Your task to perform on an android device: turn on the 12-hour format for clock Image 0: 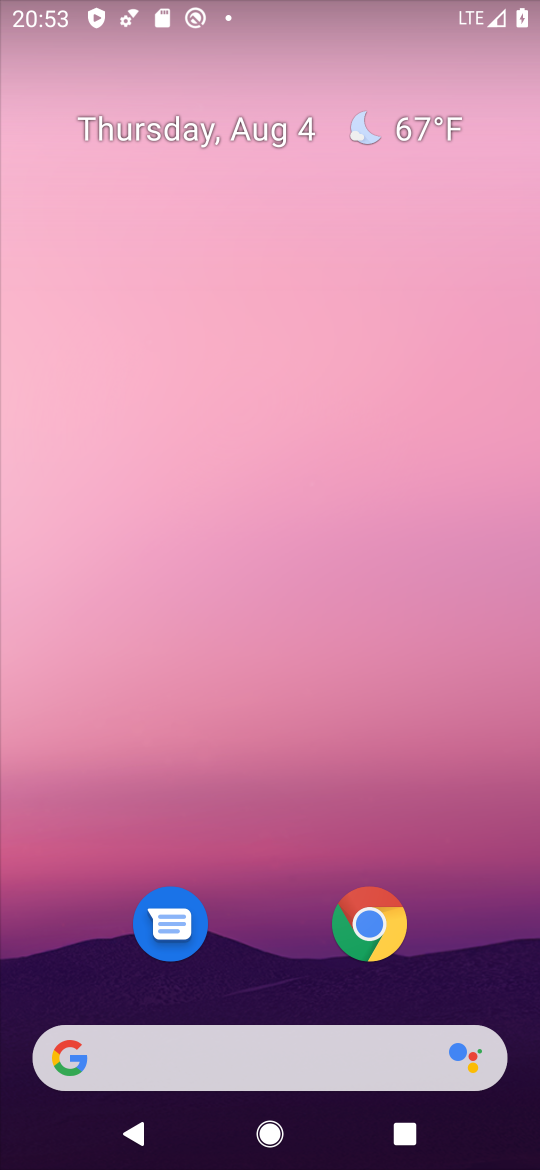
Step 0: drag from (282, 983) to (210, 37)
Your task to perform on an android device: turn on the 12-hour format for clock Image 1: 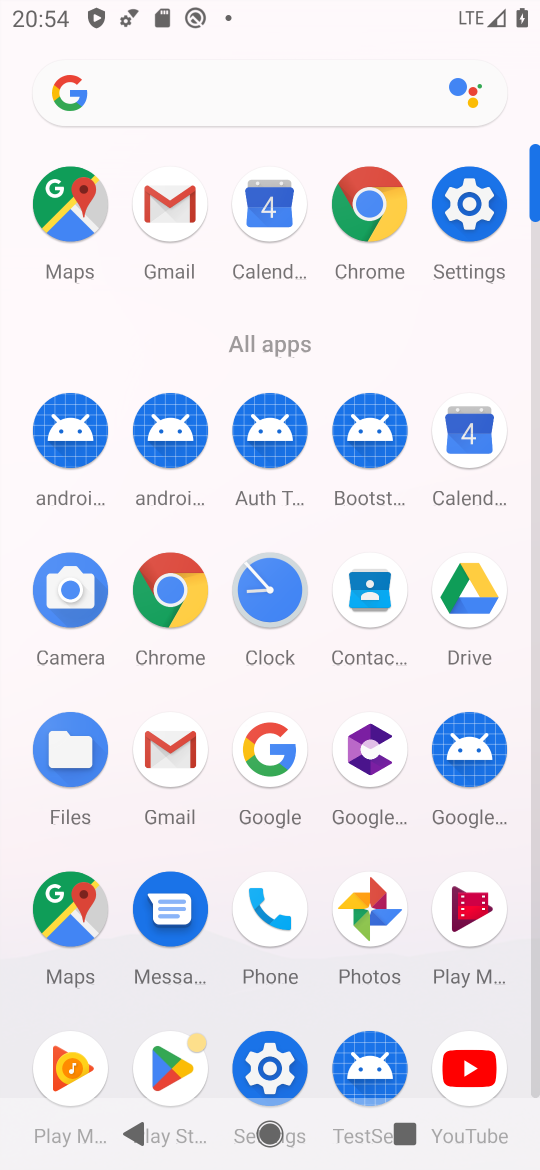
Step 1: click (281, 605)
Your task to perform on an android device: turn on the 12-hour format for clock Image 2: 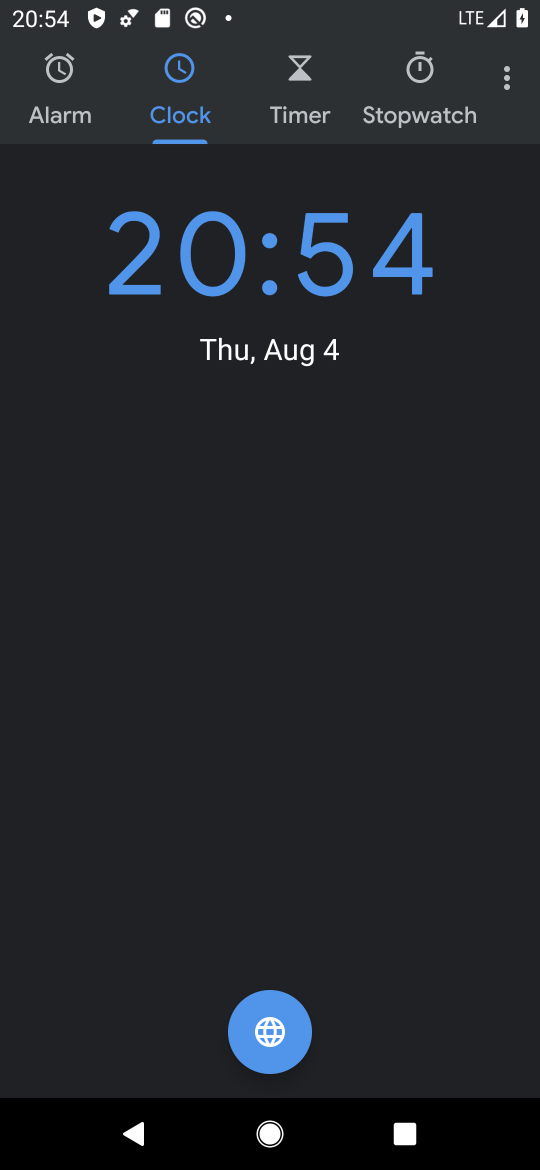
Step 2: click (518, 92)
Your task to perform on an android device: turn on the 12-hour format for clock Image 3: 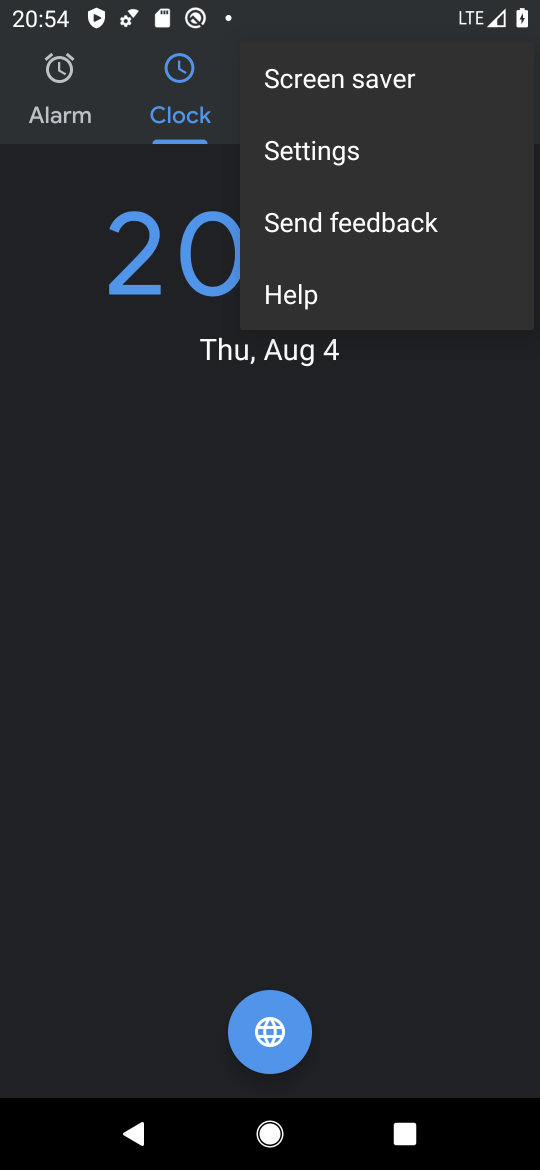
Step 3: click (344, 150)
Your task to perform on an android device: turn on the 12-hour format for clock Image 4: 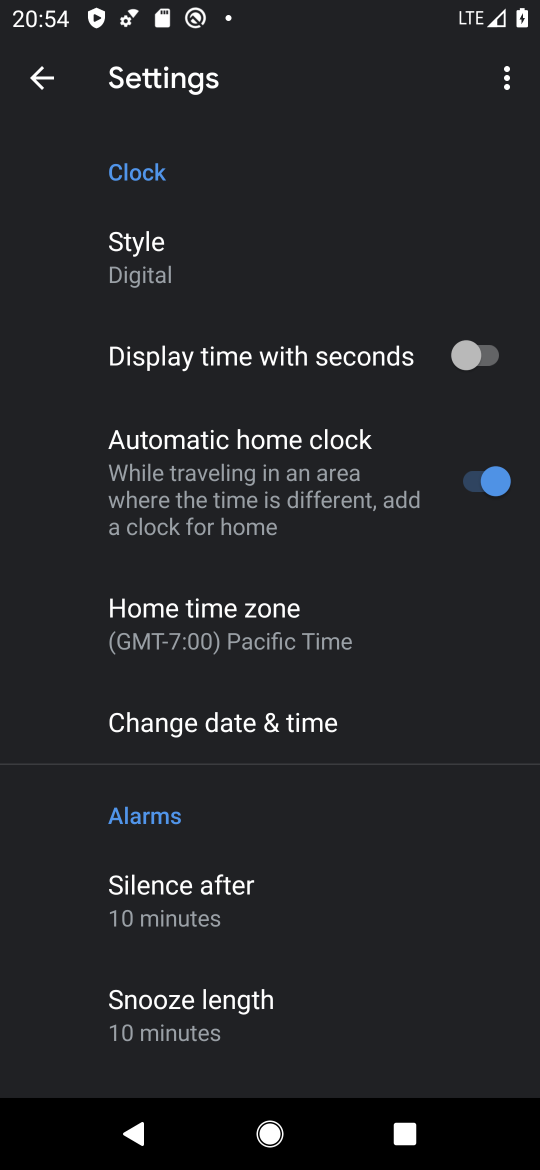
Step 4: click (237, 724)
Your task to perform on an android device: turn on the 12-hour format for clock Image 5: 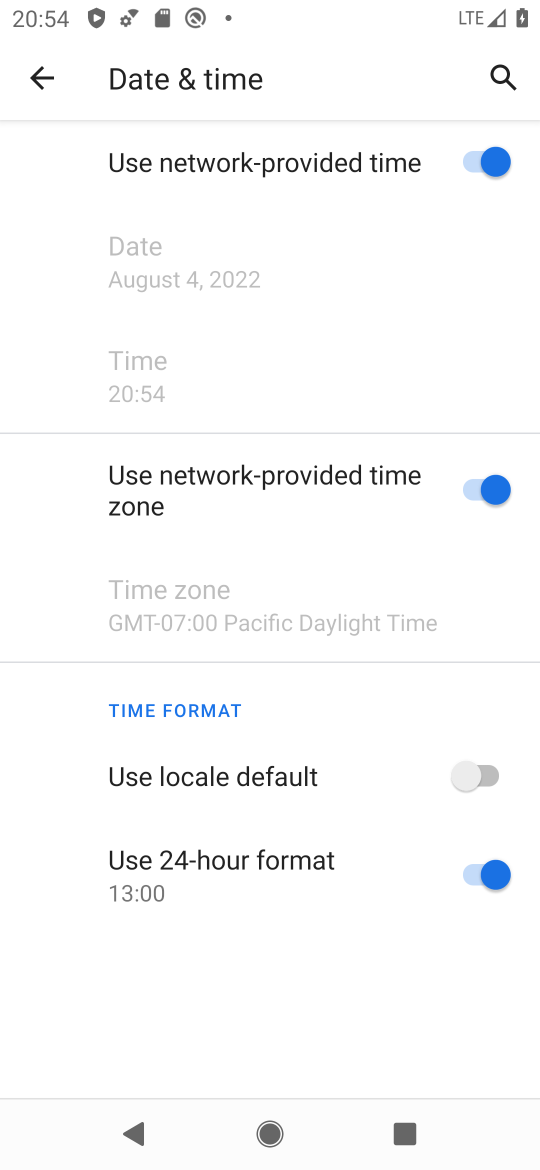
Step 5: click (494, 876)
Your task to perform on an android device: turn on the 12-hour format for clock Image 6: 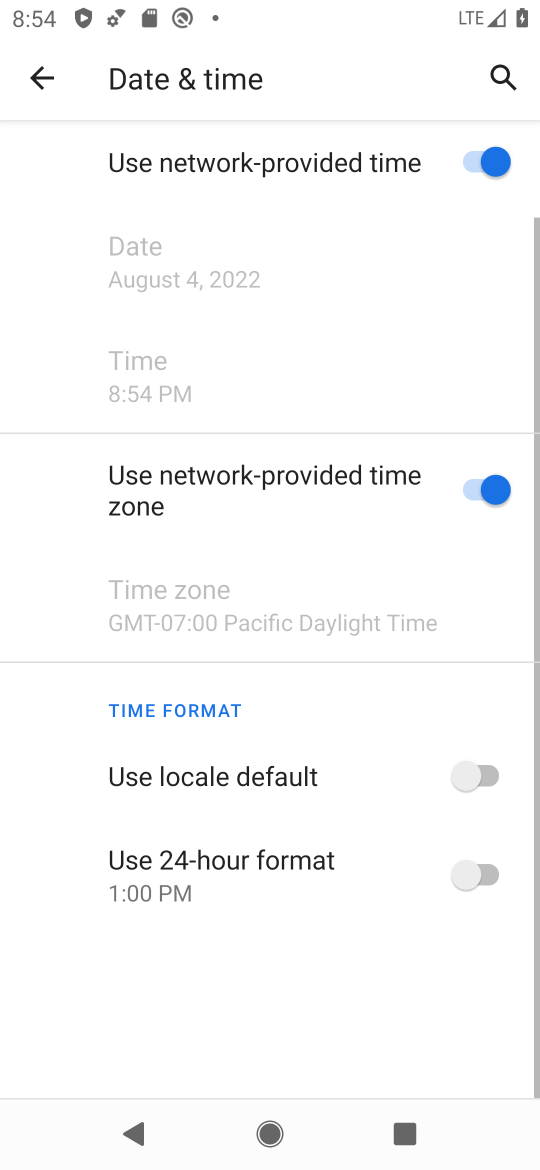
Step 6: task complete